Your task to perform on an android device: turn off translation in the chrome app Image 0: 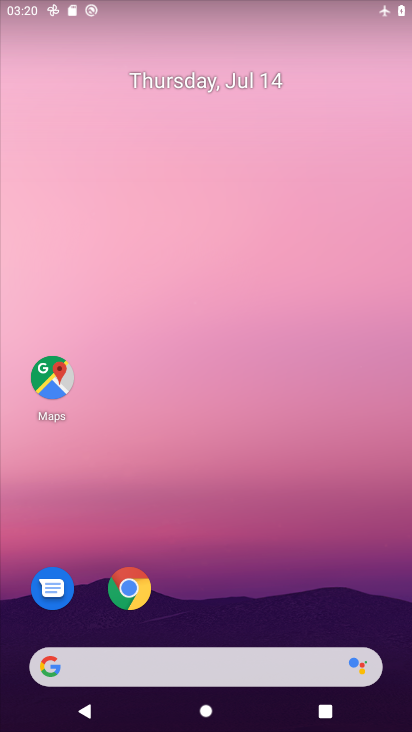
Step 0: drag from (254, 604) to (278, 274)
Your task to perform on an android device: turn off translation in the chrome app Image 1: 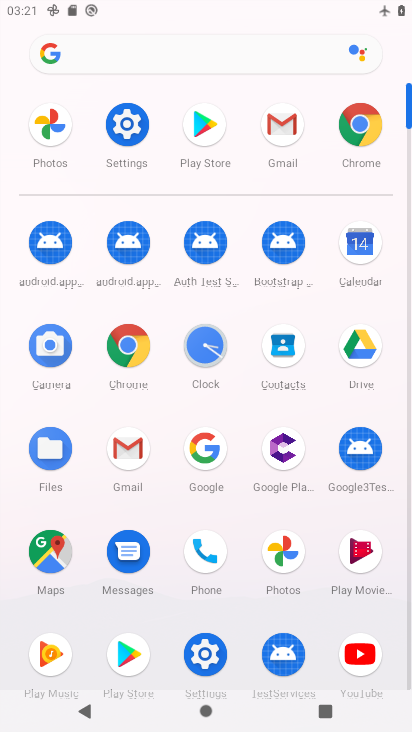
Step 1: click (364, 125)
Your task to perform on an android device: turn off translation in the chrome app Image 2: 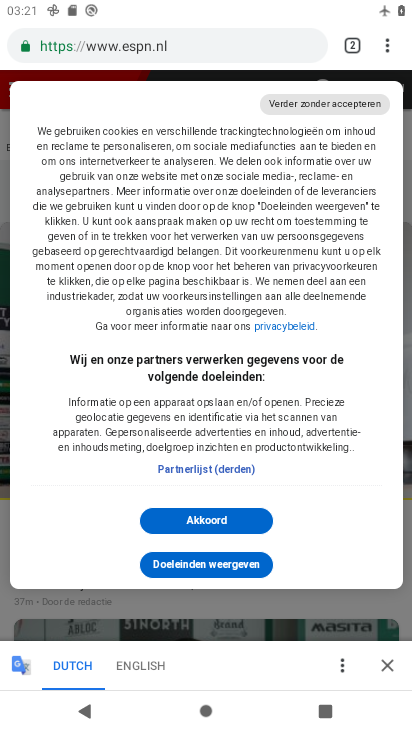
Step 2: click (392, 46)
Your task to perform on an android device: turn off translation in the chrome app Image 3: 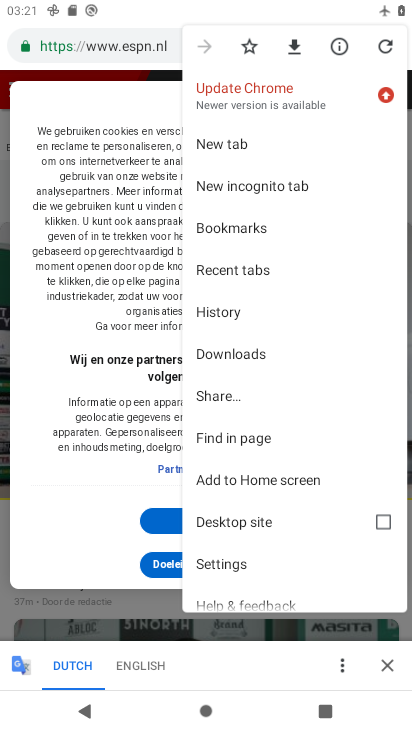
Step 3: click (265, 573)
Your task to perform on an android device: turn off translation in the chrome app Image 4: 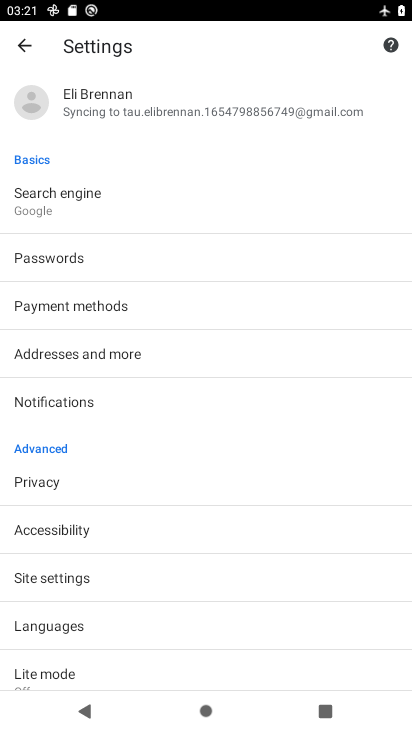
Step 4: click (216, 630)
Your task to perform on an android device: turn off translation in the chrome app Image 5: 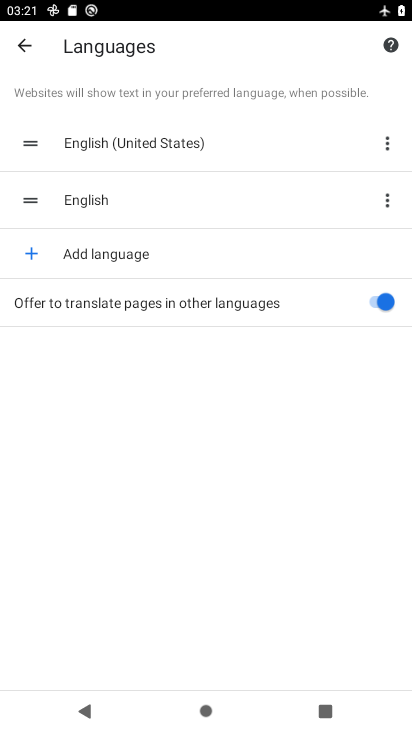
Step 5: click (374, 302)
Your task to perform on an android device: turn off translation in the chrome app Image 6: 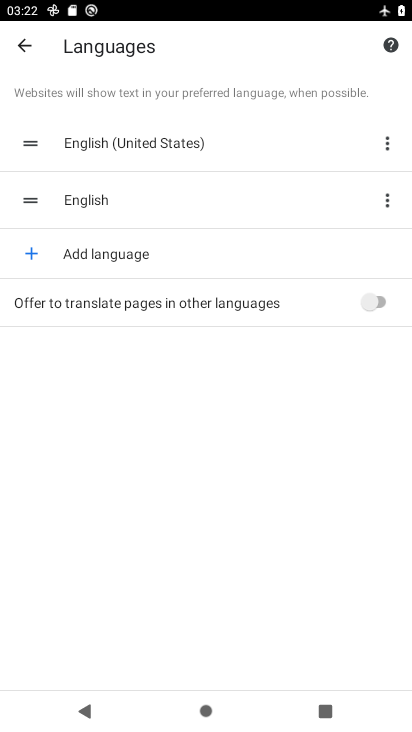
Step 6: task complete